Your task to perform on an android device: Go to Wikipedia Image 0: 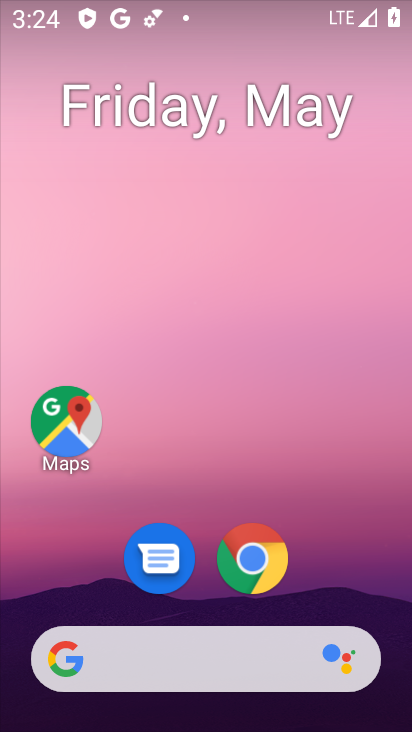
Step 0: press home button
Your task to perform on an android device: Go to Wikipedia Image 1: 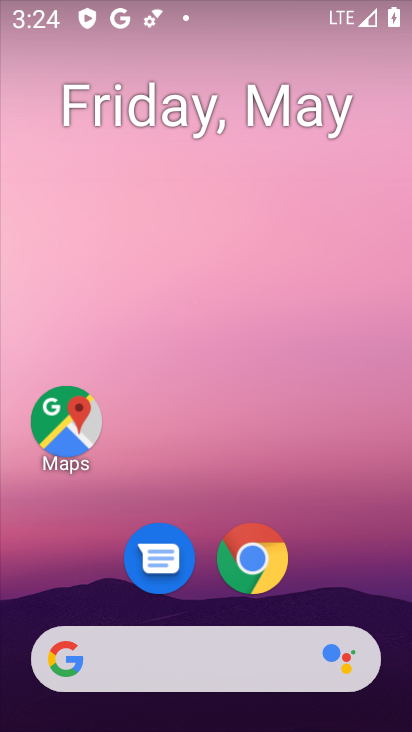
Step 1: click (260, 567)
Your task to perform on an android device: Go to Wikipedia Image 2: 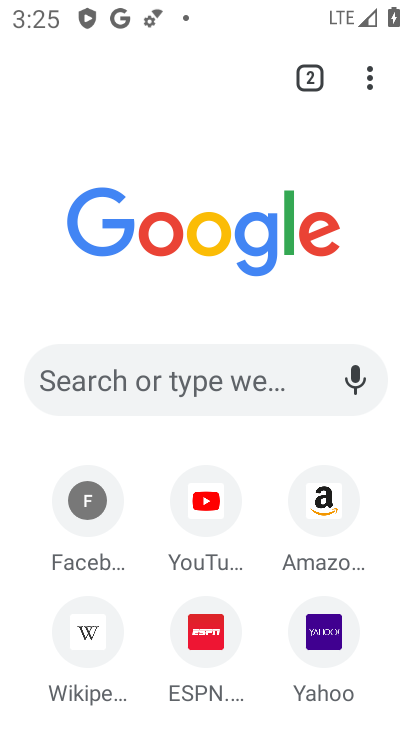
Step 2: click (90, 646)
Your task to perform on an android device: Go to Wikipedia Image 3: 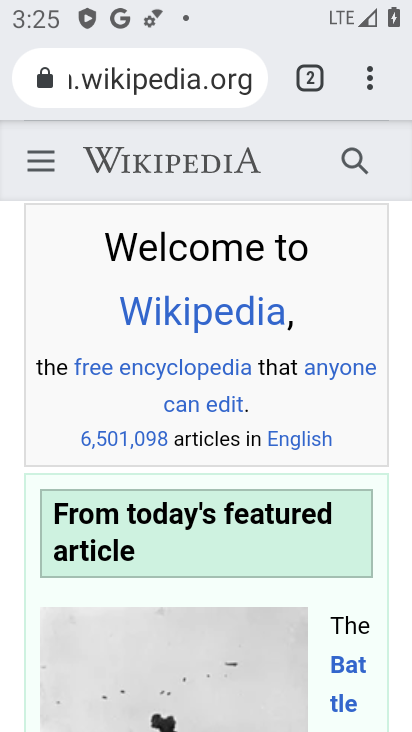
Step 3: task complete